Your task to perform on an android device: open sync settings in chrome Image 0: 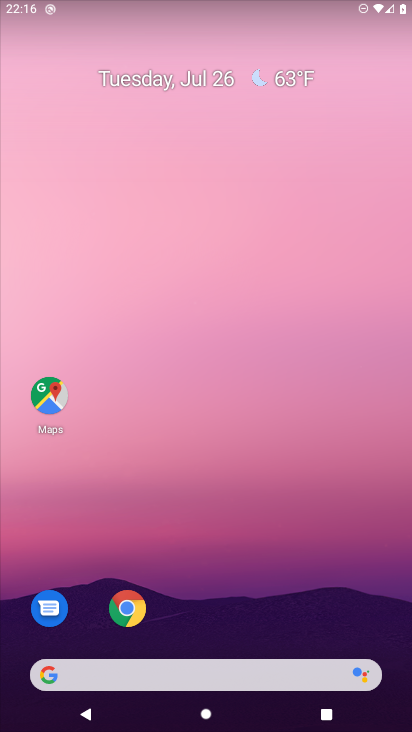
Step 0: click (121, 606)
Your task to perform on an android device: open sync settings in chrome Image 1: 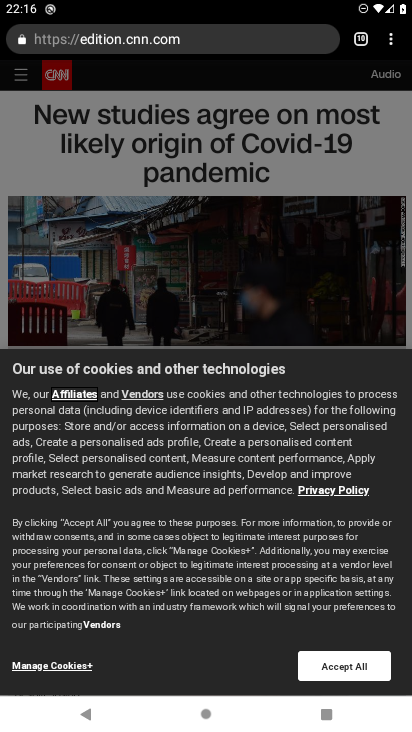
Step 1: click (393, 38)
Your task to perform on an android device: open sync settings in chrome Image 2: 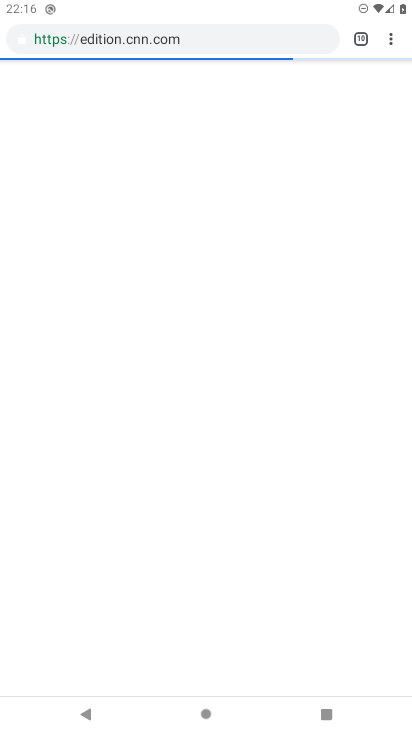
Step 2: click (389, 42)
Your task to perform on an android device: open sync settings in chrome Image 3: 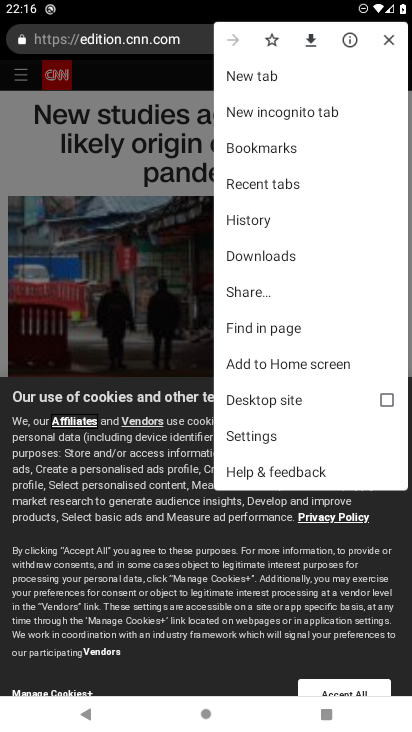
Step 3: click (245, 438)
Your task to perform on an android device: open sync settings in chrome Image 4: 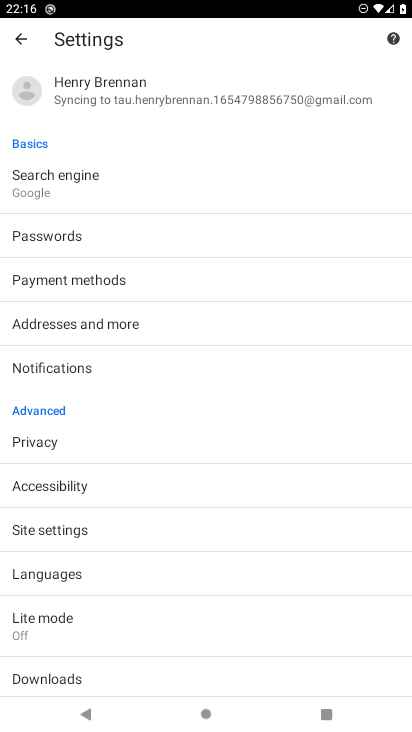
Step 4: click (49, 523)
Your task to perform on an android device: open sync settings in chrome Image 5: 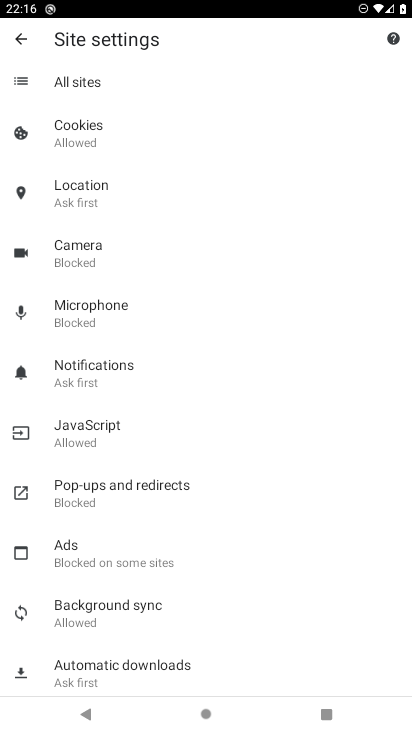
Step 5: click (120, 618)
Your task to perform on an android device: open sync settings in chrome Image 6: 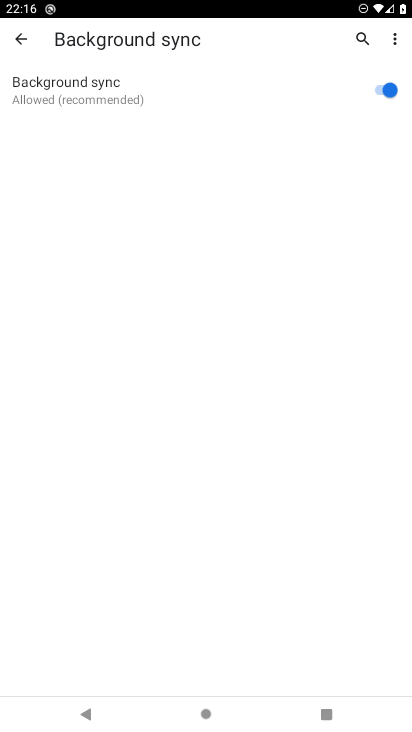
Step 6: task complete